Your task to perform on an android device: Search for "logitech g pro" on costco.com, select the first entry, and add it to the cart. Image 0: 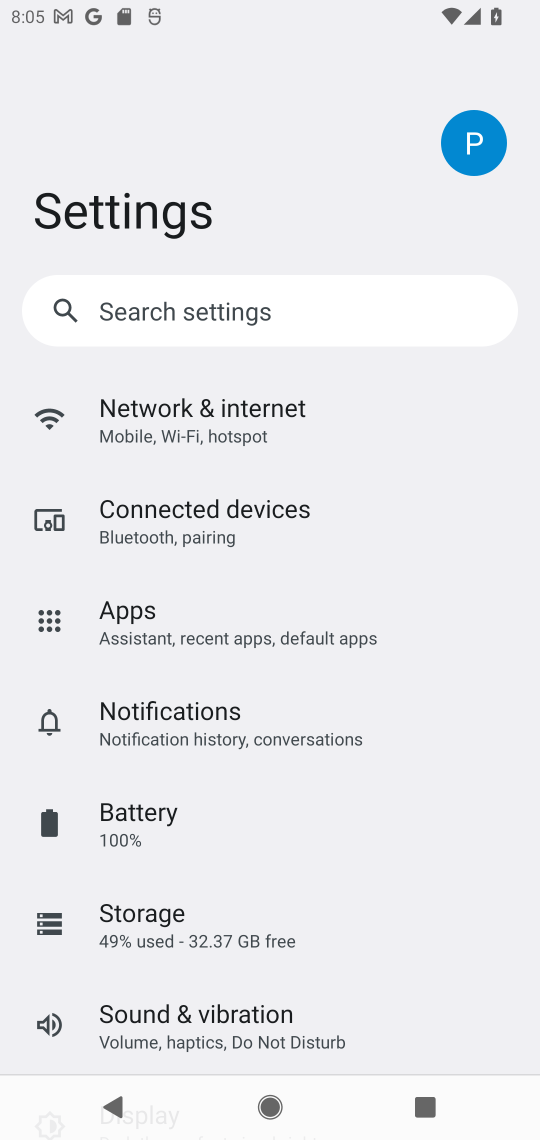
Step 0: press home button
Your task to perform on an android device: Search for "logitech g pro" on costco.com, select the first entry, and add it to the cart. Image 1: 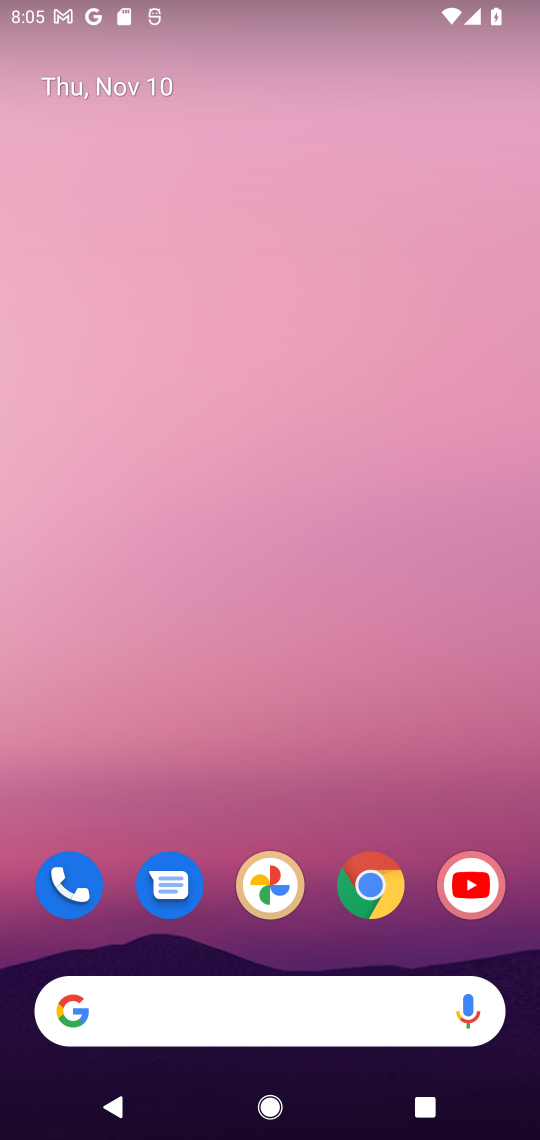
Step 1: click (376, 874)
Your task to perform on an android device: Search for "logitech g pro" on costco.com, select the first entry, and add it to the cart. Image 2: 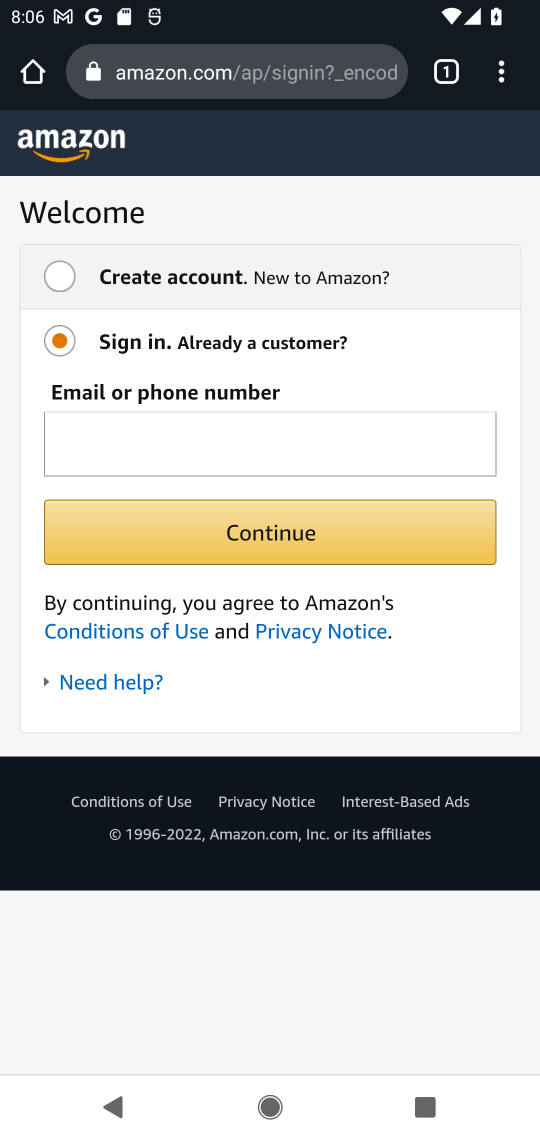
Step 2: click (247, 72)
Your task to perform on an android device: Search for "logitech g pro" on costco.com, select the first entry, and add it to the cart. Image 3: 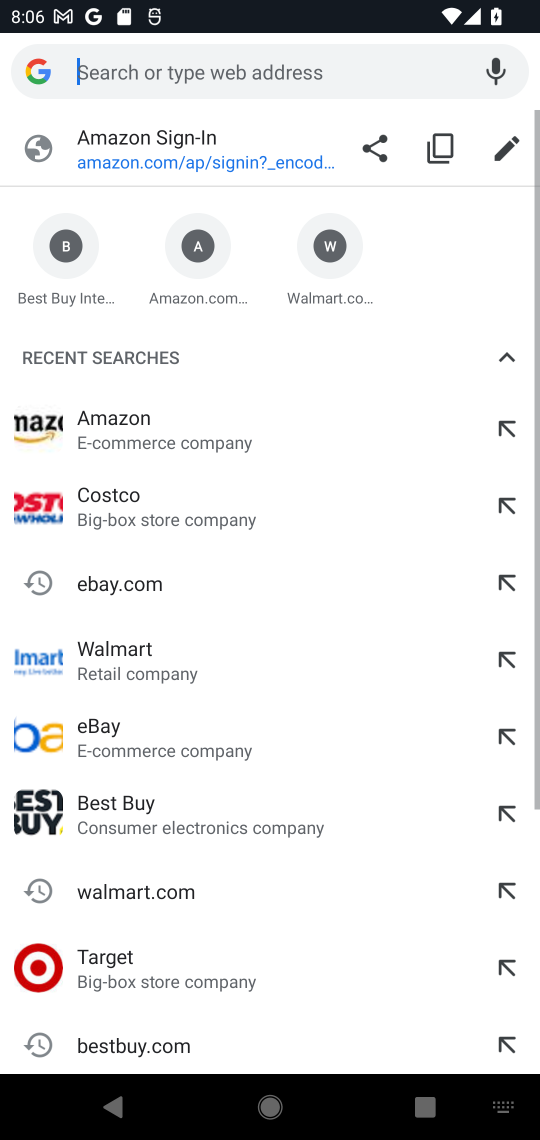
Step 3: drag from (259, 1010) to (210, 752)
Your task to perform on an android device: Search for "logitech g pro" on costco.com, select the first entry, and add it to the cart. Image 4: 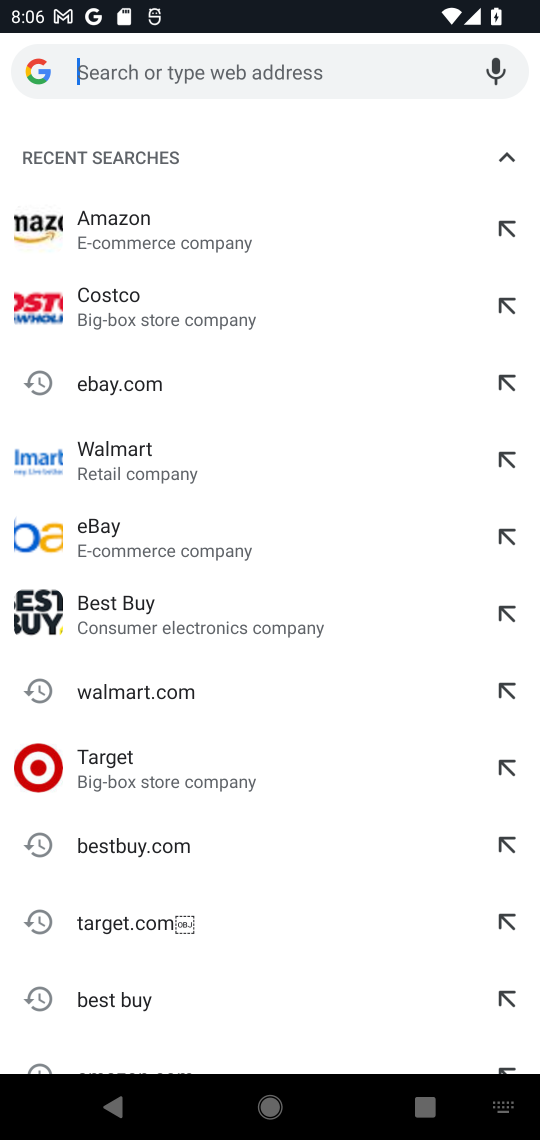
Step 4: click (259, 293)
Your task to perform on an android device: Search for "logitech g pro" on costco.com, select the first entry, and add it to the cart. Image 5: 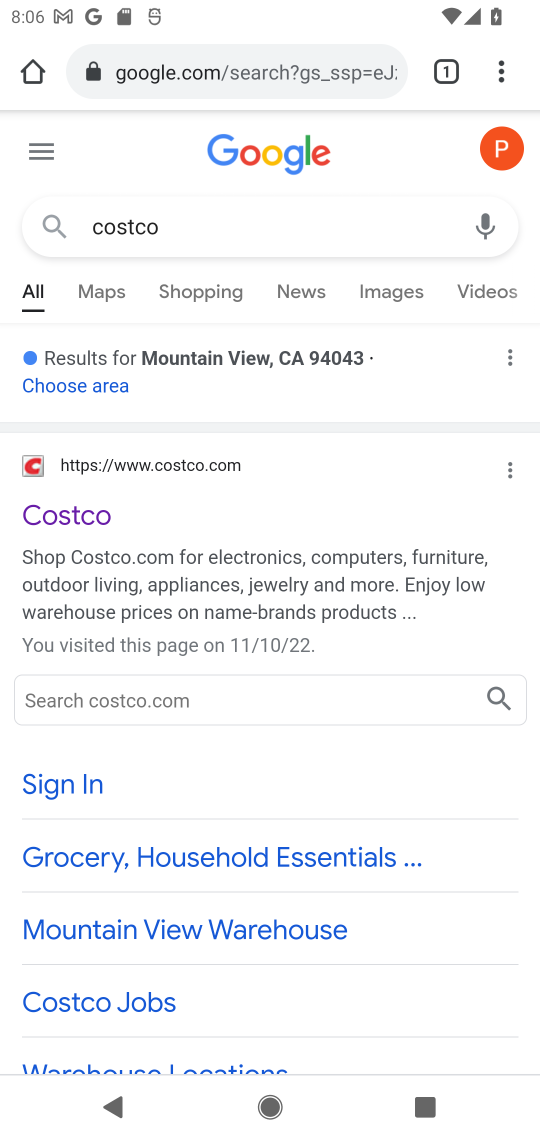
Step 5: click (180, 466)
Your task to perform on an android device: Search for "logitech g pro" on costco.com, select the first entry, and add it to the cart. Image 6: 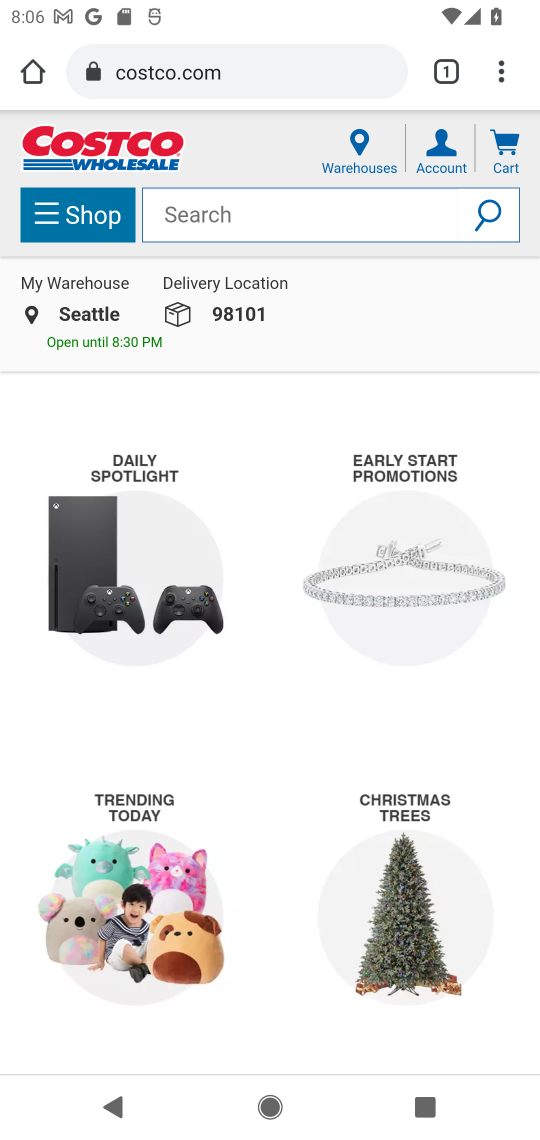
Step 6: click (295, 219)
Your task to perform on an android device: Search for "logitech g pro" on costco.com, select the first entry, and add it to the cart. Image 7: 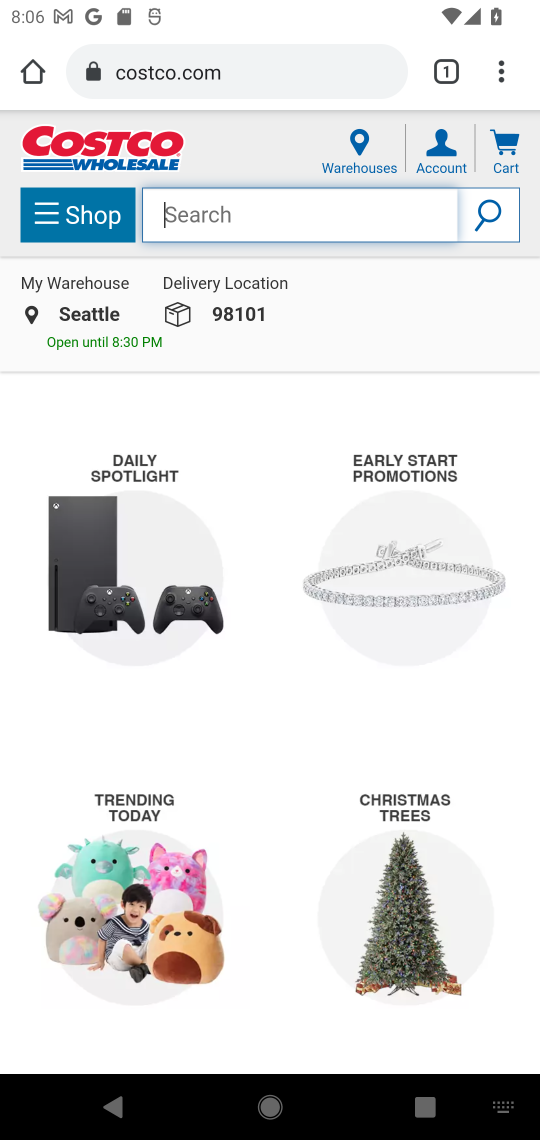
Step 7: type "logitech g pro"
Your task to perform on an android device: Search for "logitech g pro" on costco.com, select the first entry, and add it to the cart. Image 8: 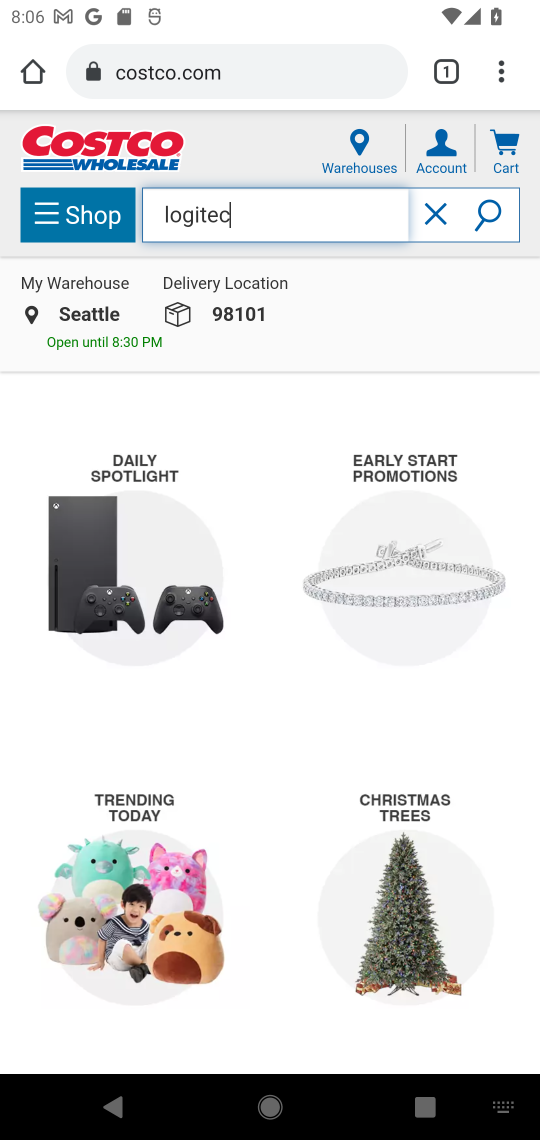
Step 8: press enter
Your task to perform on an android device: Search for "logitech g pro" on costco.com, select the first entry, and add it to the cart. Image 9: 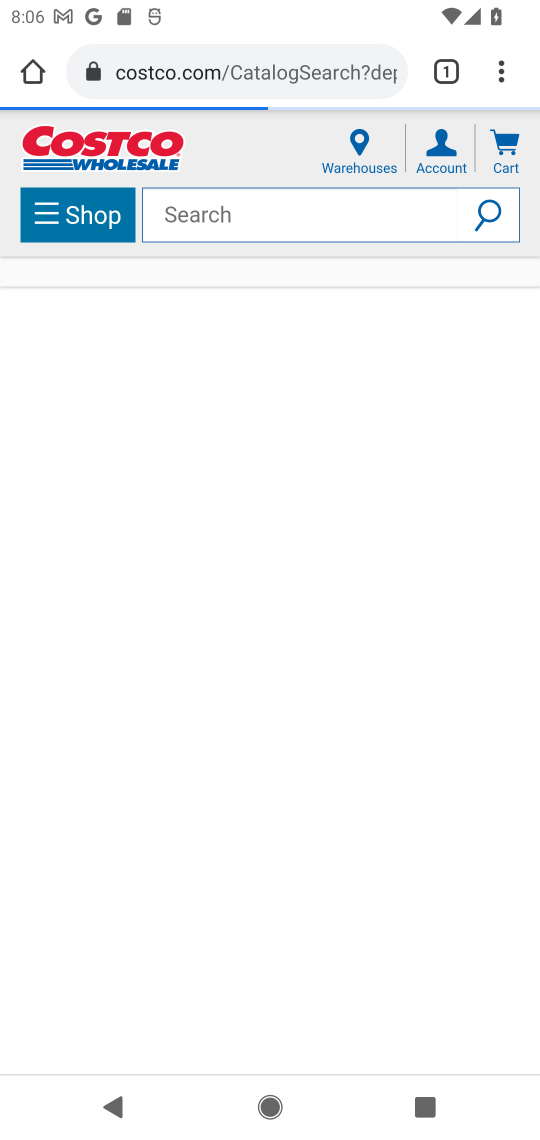
Step 9: click (495, 309)
Your task to perform on an android device: Search for "logitech g pro" on costco.com, select the first entry, and add it to the cart. Image 10: 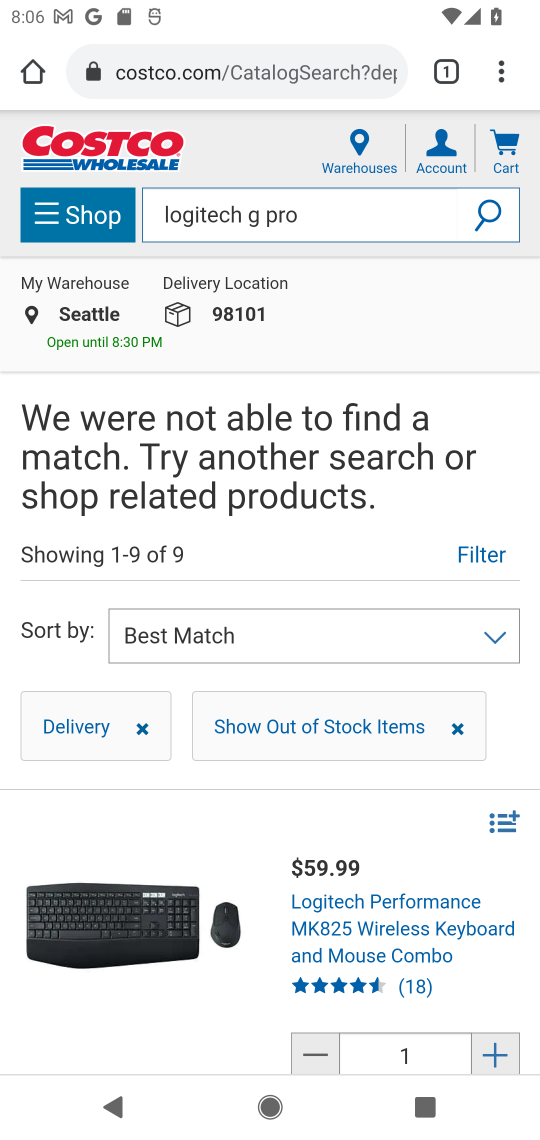
Step 10: task complete